Your task to perform on an android device: Open CNN.com Image 0: 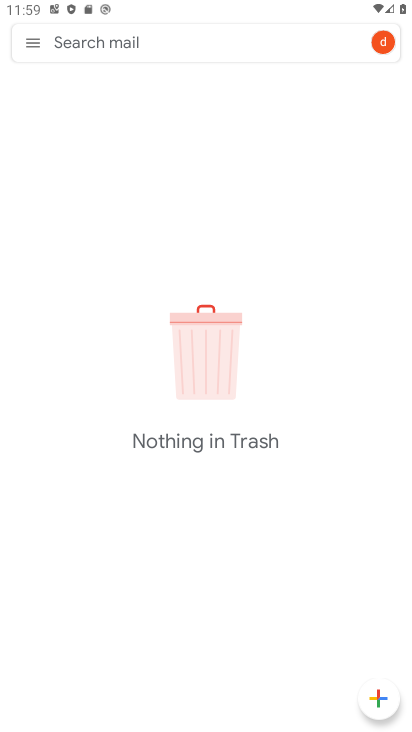
Step 0: press home button
Your task to perform on an android device: Open CNN.com Image 1: 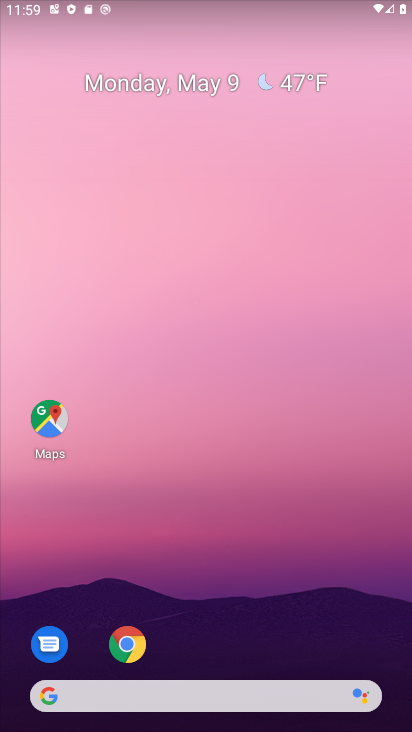
Step 1: click (139, 662)
Your task to perform on an android device: Open CNN.com Image 2: 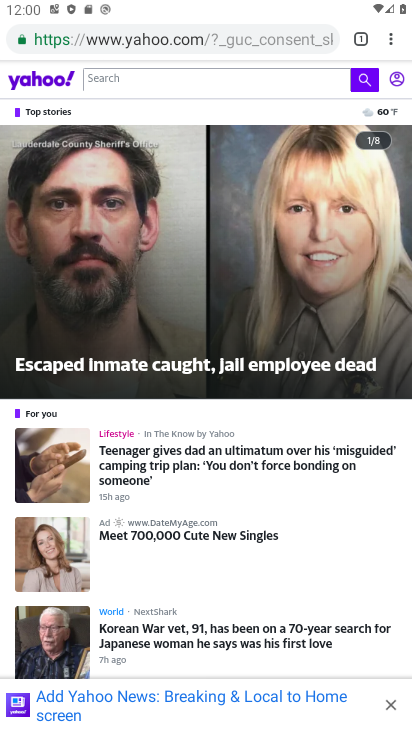
Step 2: click (195, 36)
Your task to perform on an android device: Open CNN.com Image 3: 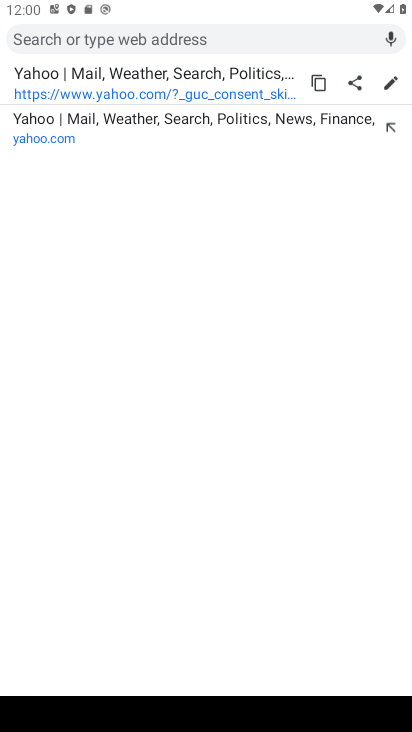
Step 3: type "CNN.com"
Your task to perform on an android device: Open CNN.com Image 4: 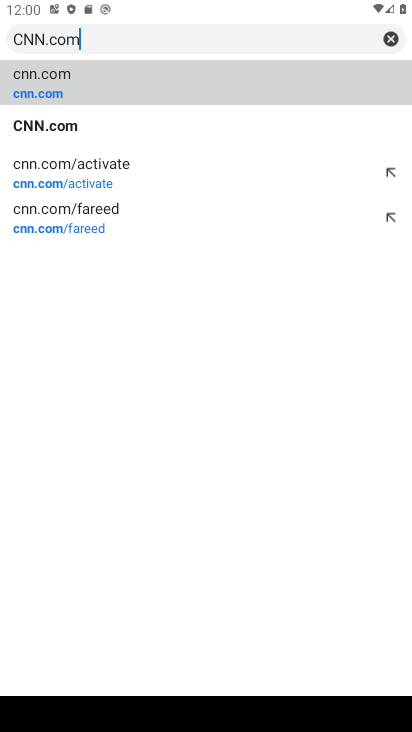
Step 4: click (155, 123)
Your task to perform on an android device: Open CNN.com Image 5: 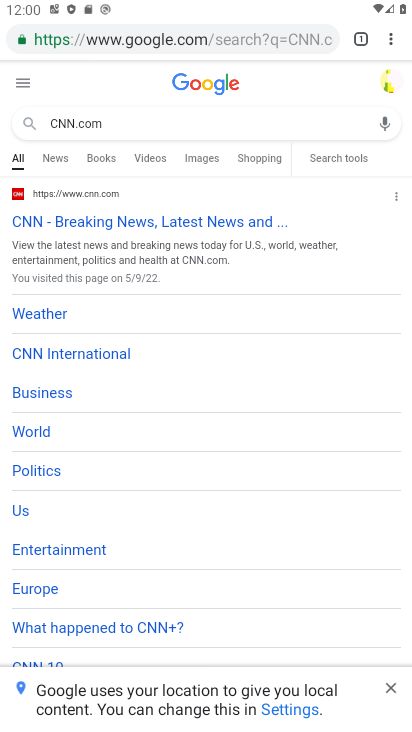
Step 5: task complete